Your task to perform on an android device: Open settings Image 0: 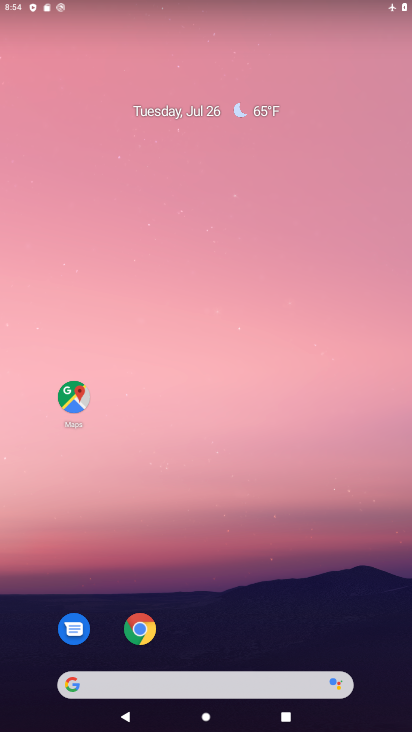
Step 0: drag from (317, 577) to (281, 91)
Your task to perform on an android device: Open settings Image 1: 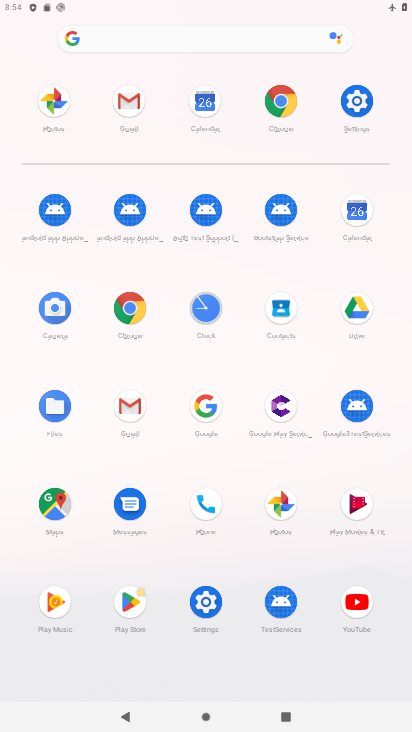
Step 1: click (355, 92)
Your task to perform on an android device: Open settings Image 2: 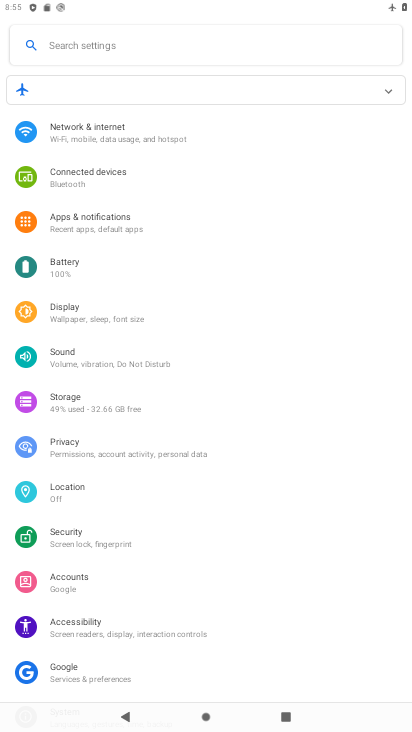
Step 2: task complete